Your task to perform on an android device: open app "Upside-Cash back on gas & food" (install if not already installed) Image 0: 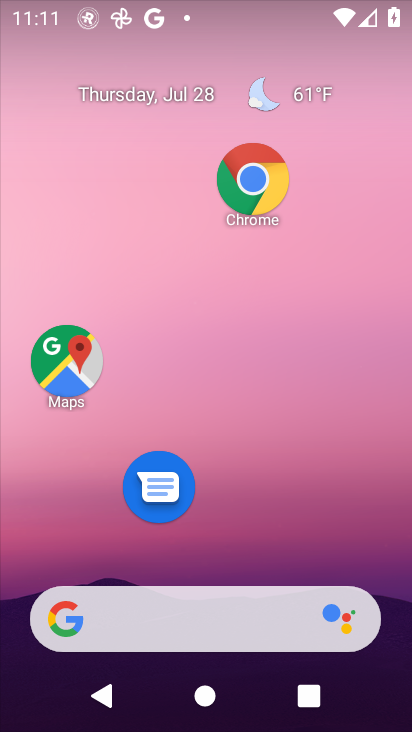
Step 0: drag from (295, 532) to (262, 195)
Your task to perform on an android device: open app "Upside-Cash back on gas & food" (install if not already installed) Image 1: 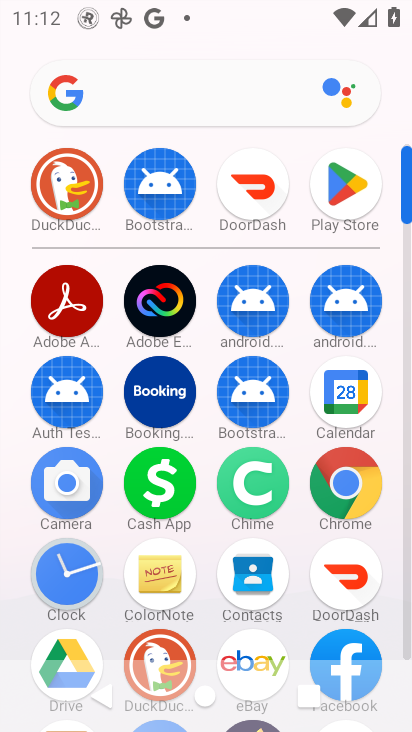
Step 1: click (354, 181)
Your task to perform on an android device: open app "Upside-Cash back on gas & food" (install if not already installed) Image 2: 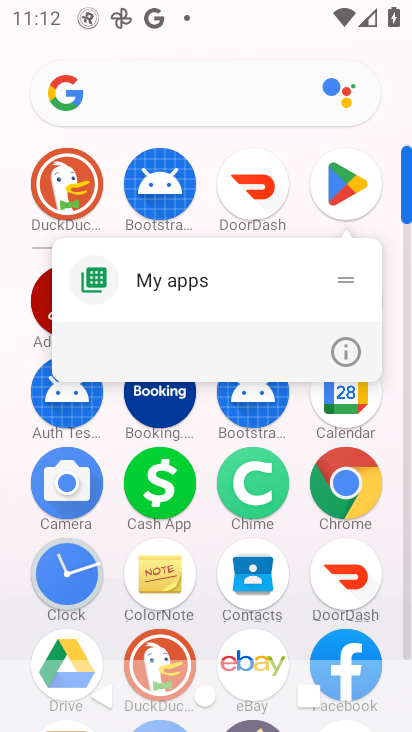
Step 2: click (353, 181)
Your task to perform on an android device: open app "Upside-Cash back on gas & food" (install if not already installed) Image 3: 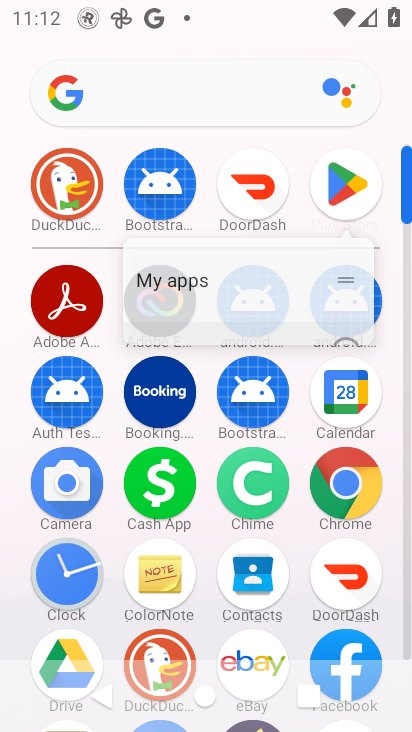
Step 3: click (351, 180)
Your task to perform on an android device: open app "Upside-Cash back on gas & food" (install if not already installed) Image 4: 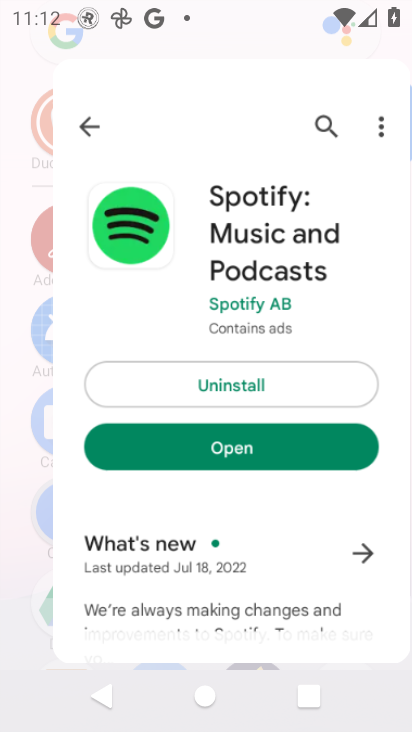
Step 4: click (357, 171)
Your task to perform on an android device: open app "Upside-Cash back on gas & food" (install if not already installed) Image 5: 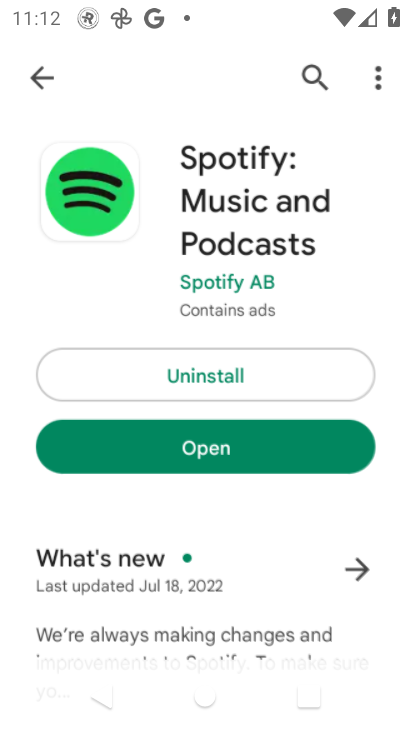
Step 5: click (357, 171)
Your task to perform on an android device: open app "Upside-Cash back on gas & food" (install if not already installed) Image 6: 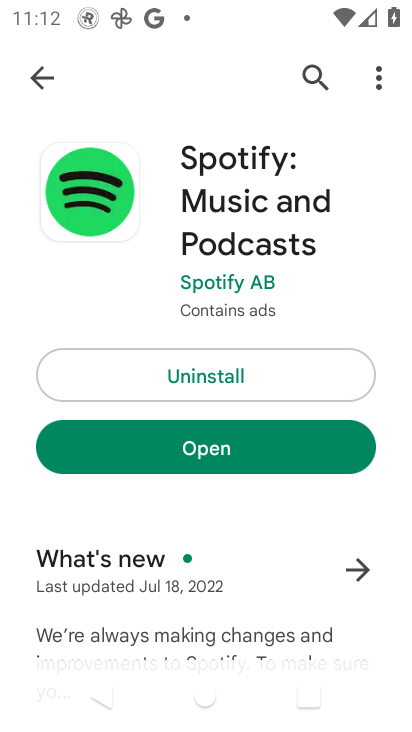
Step 6: click (358, 172)
Your task to perform on an android device: open app "Upside-Cash back on gas & food" (install if not already installed) Image 7: 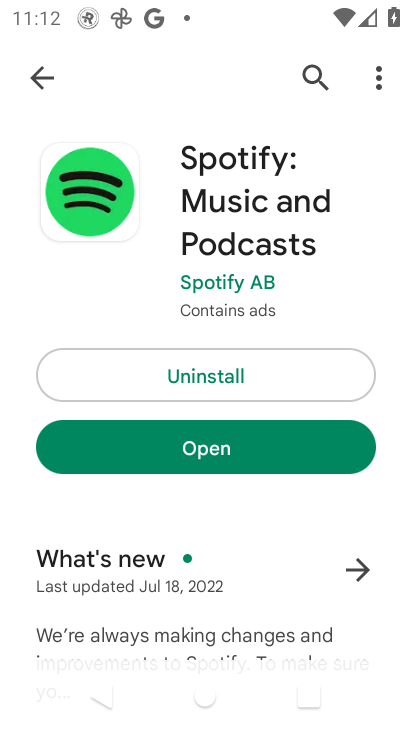
Step 7: click (41, 78)
Your task to perform on an android device: open app "Upside-Cash back on gas & food" (install if not already installed) Image 8: 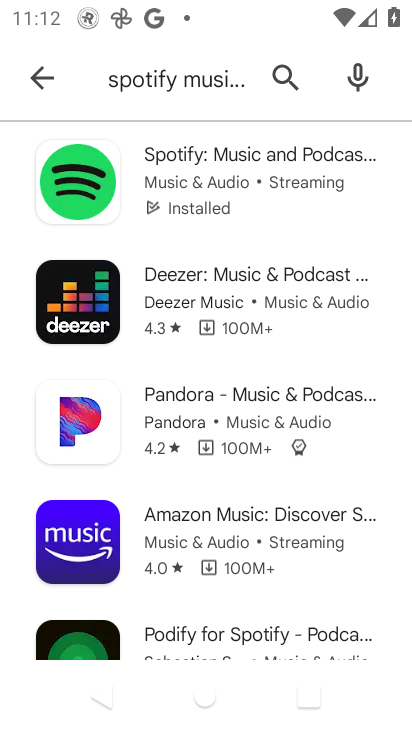
Step 8: click (29, 76)
Your task to perform on an android device: open app "Upside-Cash back on gas & food" (install if not already installed) Image 9: 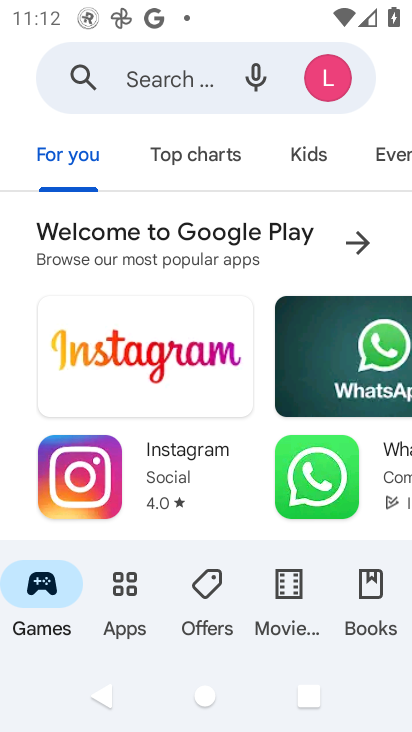
Step 9: click (136, 80)
Your task to perform on an android device: open app "Upside-Cash back on gas & food" (install if not already installed) Image 10: 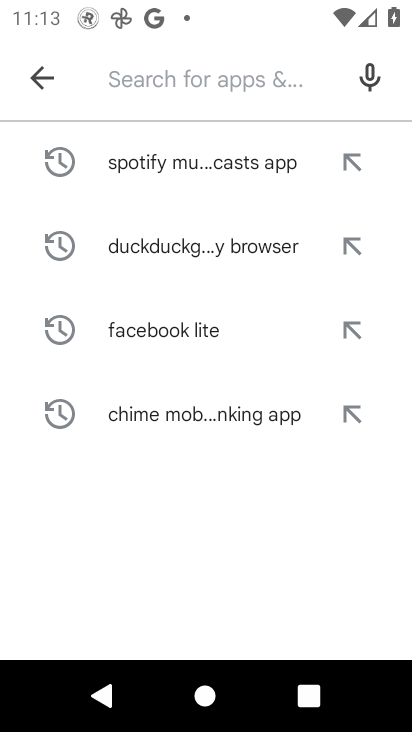
Step 10: type "Upside - Cash back on gas & food"
Your task to perform on an android device: open app "Upside-Cash back on gas & food" (install if not already installed) Image 11: 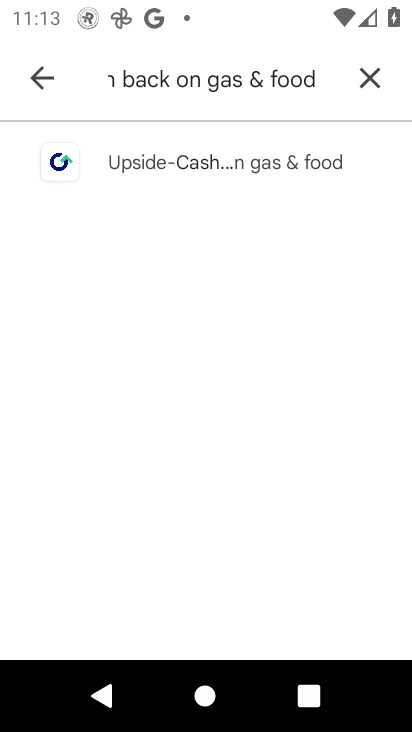
Step 11: click (207, 167)
Your task to perform on an android device: open app "Upside-Cash back on gas & food" (install if not already installed) Image 12: 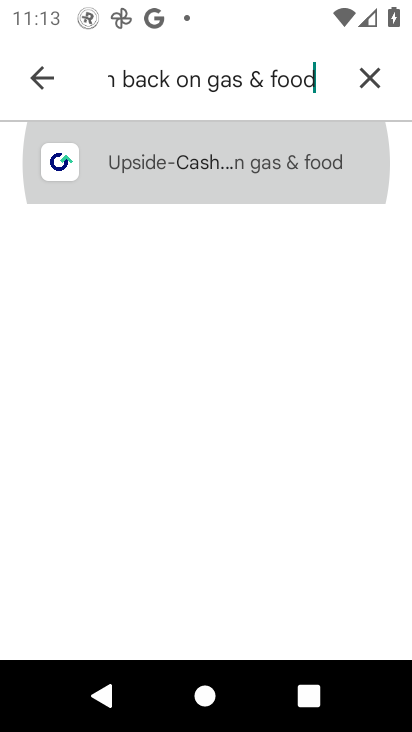
Step 12: click (205, 166)
Your task to perform on an android device: open app "Upside-Cash back on gas & food" (install if not already installed) Image 13: 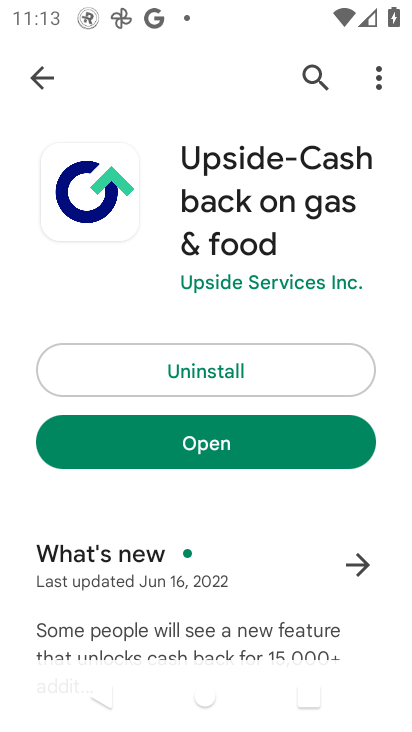
Step 13: click (214, 444)
Your task to perform on an android device: open app "Upside-Cash back on gas & food" (install if not already installed) Image 14: 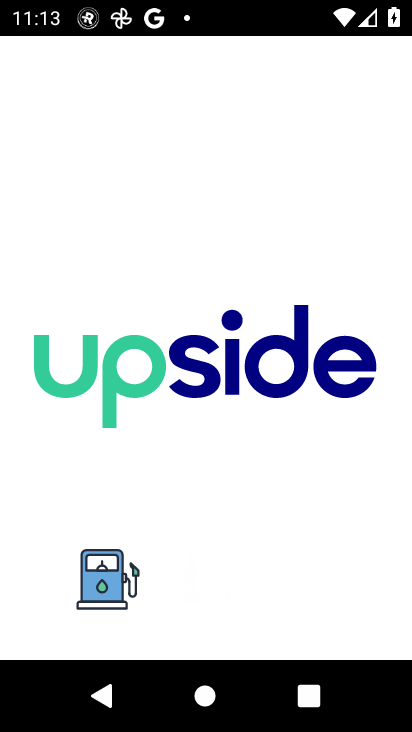
Step 14: click (263, 373)
Your task to perform on an android device: open app "Upside-Cash back on gas & food" (install if not already installed) Image 15: 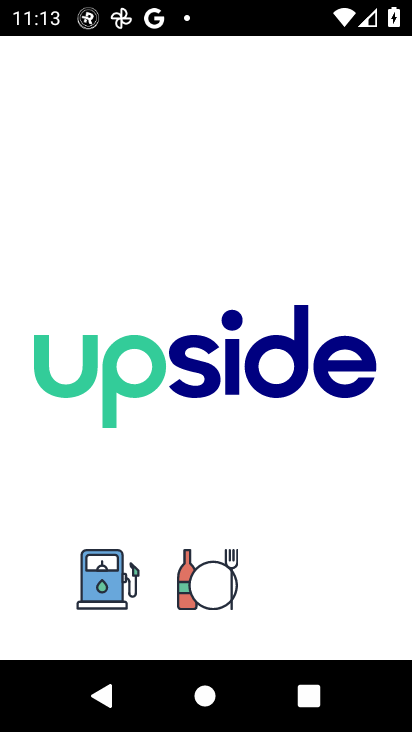
Step 15: click (275, 384)
Your task to perform on an android device: open app "Upside-Cash back on gas & food" (install if not already installed) Image 16: 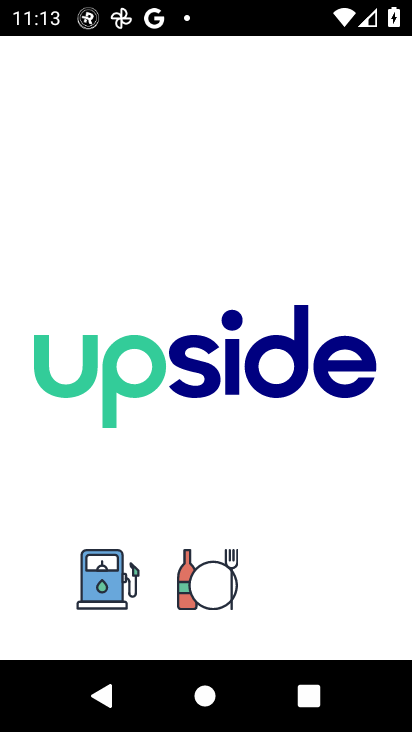
Step 16: click (283, 382)
Your task to perform on an android device: open app "Upside-Cash back on gas & food" (install if not already installed) Image 17: 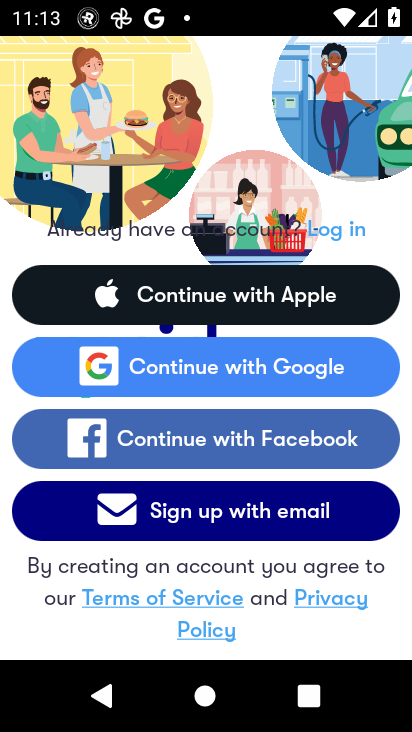
Step 17: click (276, 384)
Your task to perform on an android device: open app "Upside-Cash back on gas & food" (install if not already installed) Image 18: 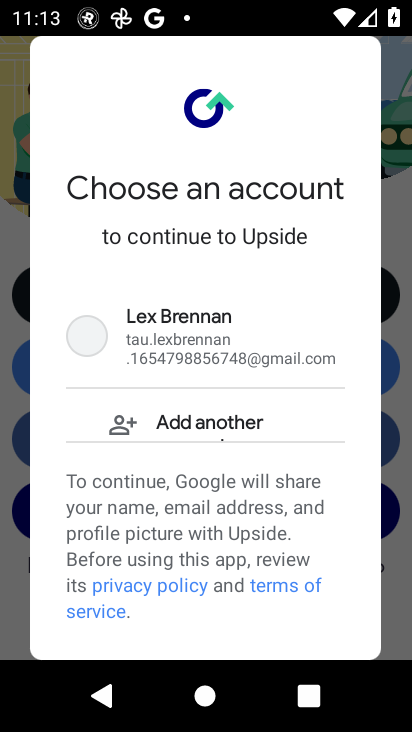
Step 18: click (391, 203)
Your task to perform on an android device: open app "Upside-Cash back on gas & food" (install if not already installed) Image 19: 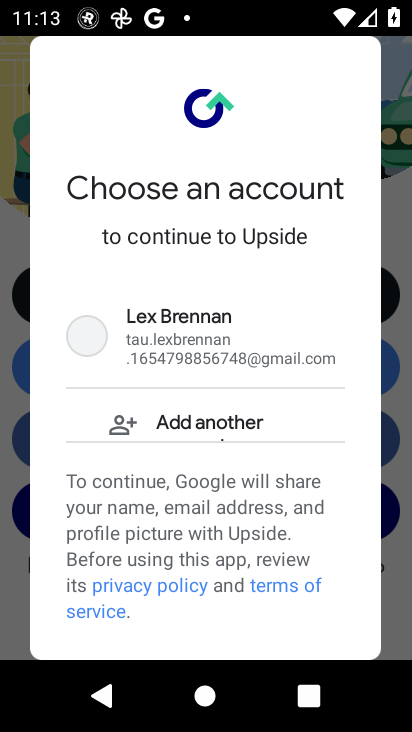
Step 19: task complete